Your task to perform on an android device: What's on my calendar today? Image 0: 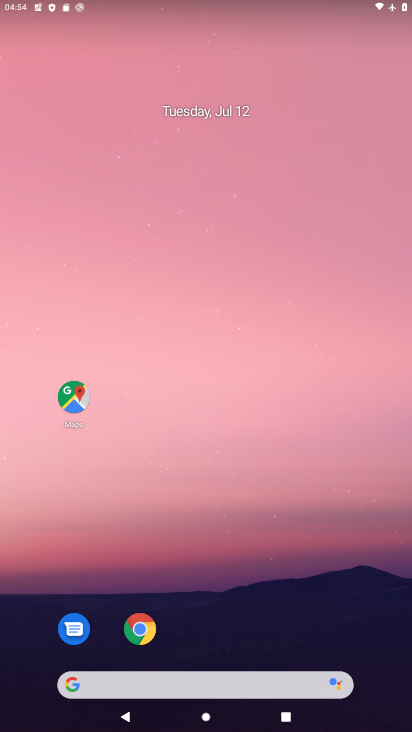
Step 0: drag from (273, 608) to (247, 131)
Your task to perform on an android device: What's on my calendar today? Image 1: 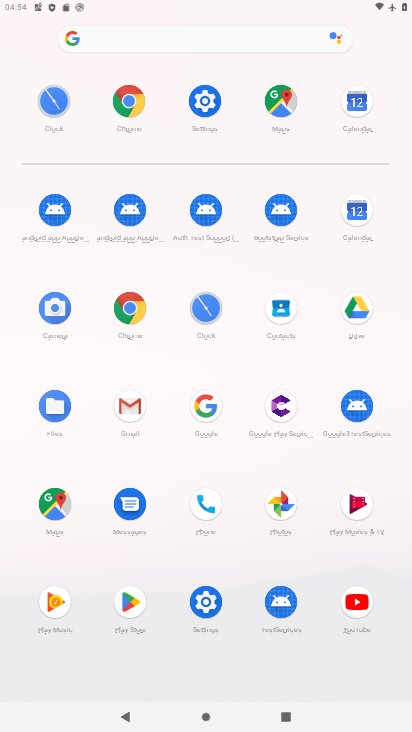
Step 1: click (352, 209)
Your task to perform on an android device: What's on my calendar today? Image 2: 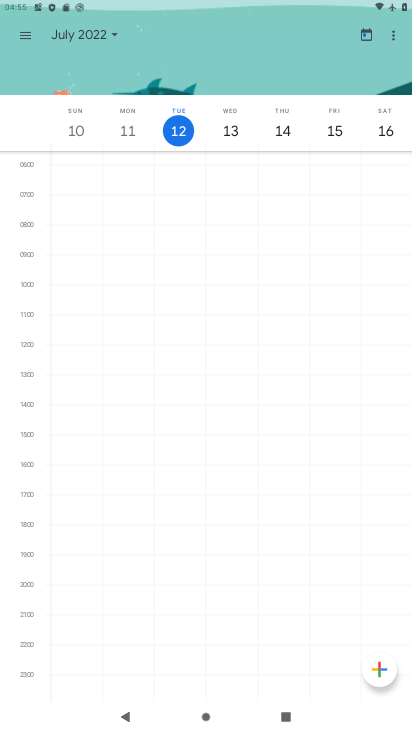
Step 2: click (163, 128)
Your task to perform on an android device: What's on my calendar today? Image 3: 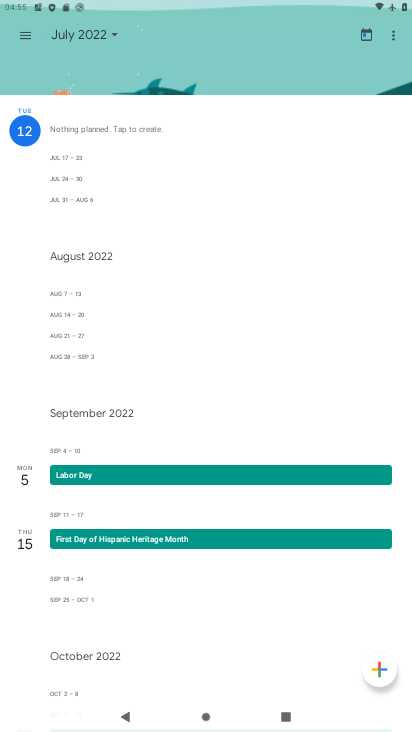
Step 3: task complete